Your task to perform on an android device: Search for pizza restaurants on Maps Image 0: 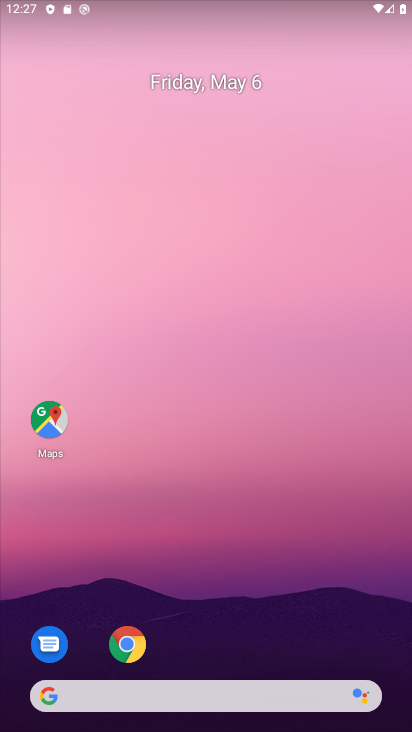
Step 0: drag from (240, 608) to (302, 4)
Your task to perform on an android device: Search for pizza restaurants on Maps Image 1: 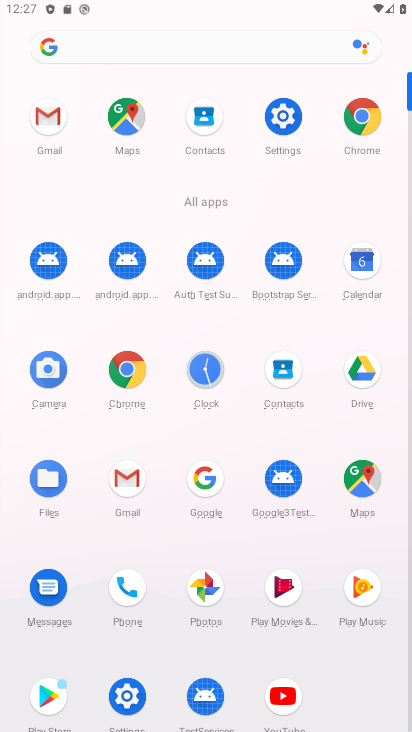
Step 1: click (353, 486)
Your task to perform on an android device: Search for pizza restaurants on Maps Image 2: 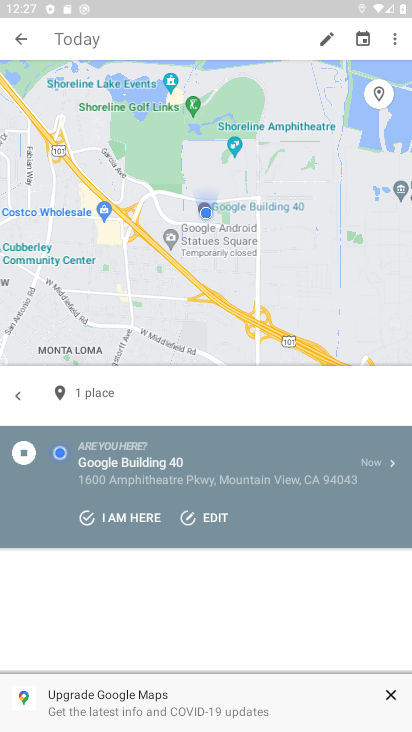
Step 2: press back button
Your task to perform on an android device: Search for pizza restaurants on Maps Image 3: 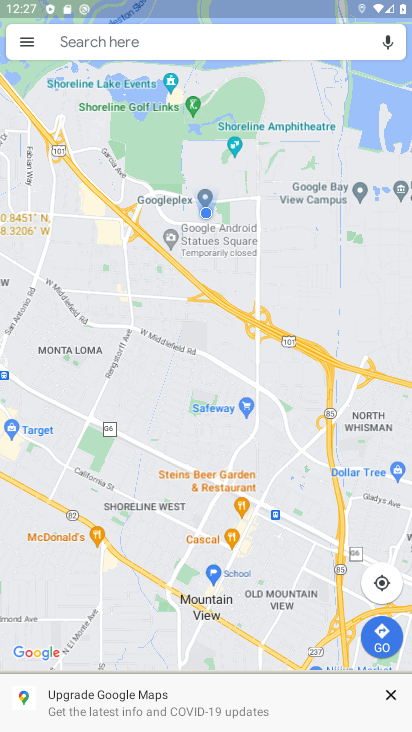
Step 3: click (146, 45)
Your task to perform on an android device: Search for pizza restaurants on Maps Image 4: 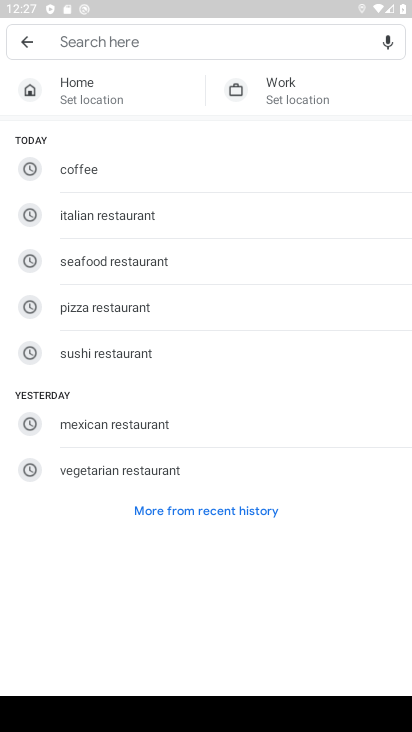
Step 4: type "pizza restaurant"
Your task to perform on an android device: Search for pizza restaurants on Maps Image 5: 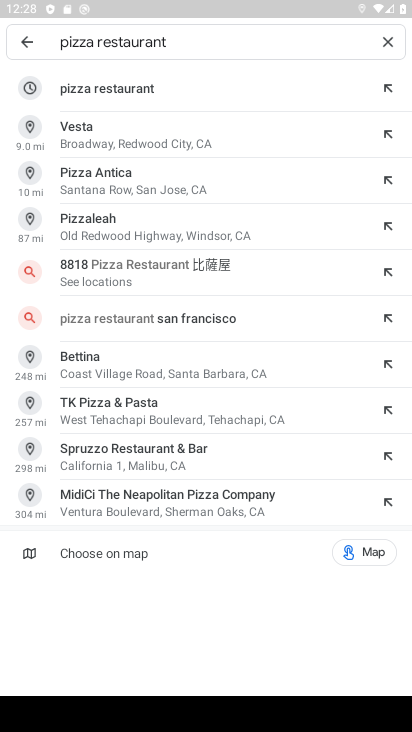
Step 5: click (220, 101)
Your task to perform on an android device: Search for pizza restaurants on Maps Image 6: 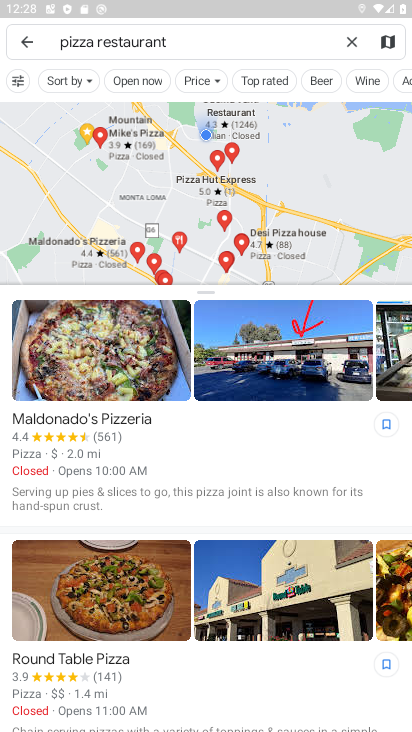
Step 6: task complete